Your task to perform on an android device: Open Yahoo.com Image 0: 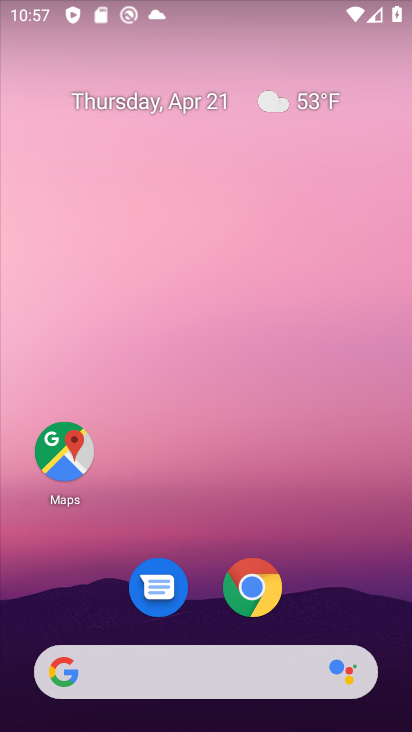
Step 0: click (258, 588)
Your task to perform on an android device: Open Yahoo.com Image 1: 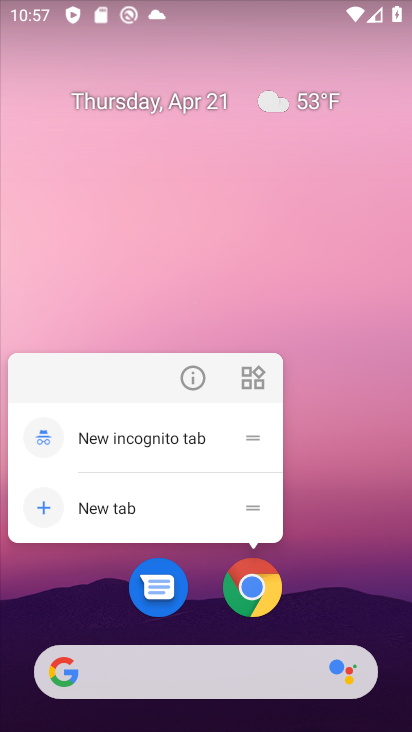
Step 1: click (243, 592)
Your task to perform on an android device: Open Yahoo.com Image 2: 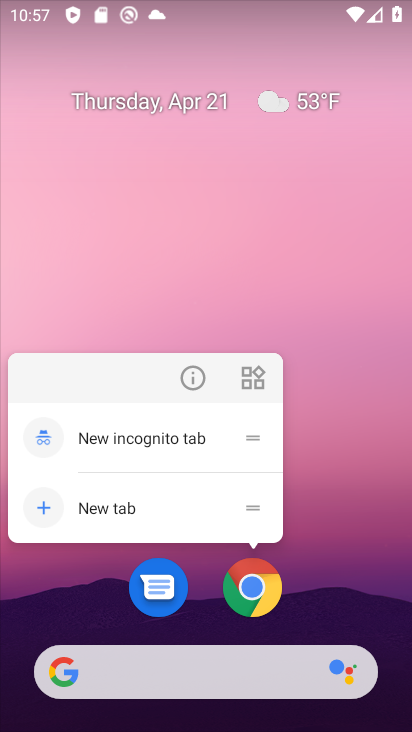
Step 2: click (269, 588)
Your task to perform on an android device: Open Yahoo.com Image 3: 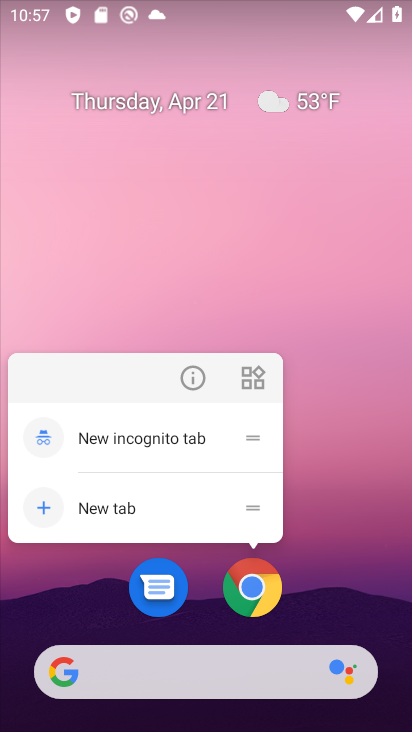
Step 3: click (256, 581)
Your task to perform on an android device: Open Yahoo.com Image 4: 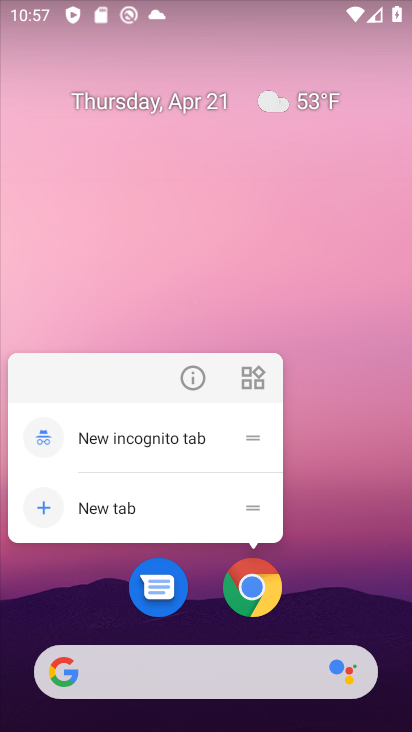
Step 4: click (254, 576)
Your task to perform on an android device: Open Yahoo.com Image 5: 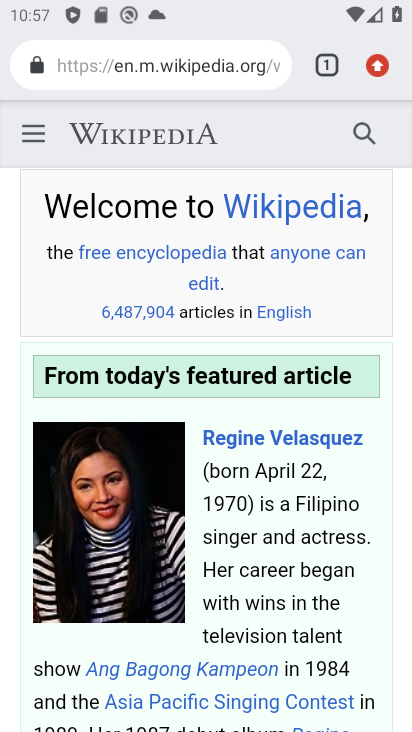
Step 5: click (321, 61)
Your task to perform on an android device: Open Yahoo.com Image 6: 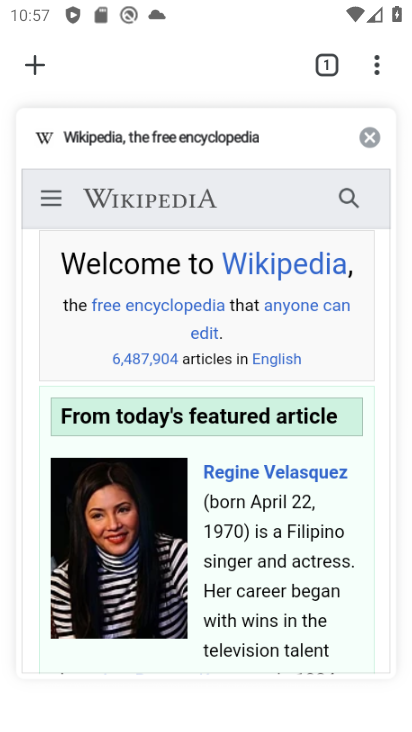
Step 6: click (32, 65)
Your task to perform on an android device: Open Yahoo.com Image 7: 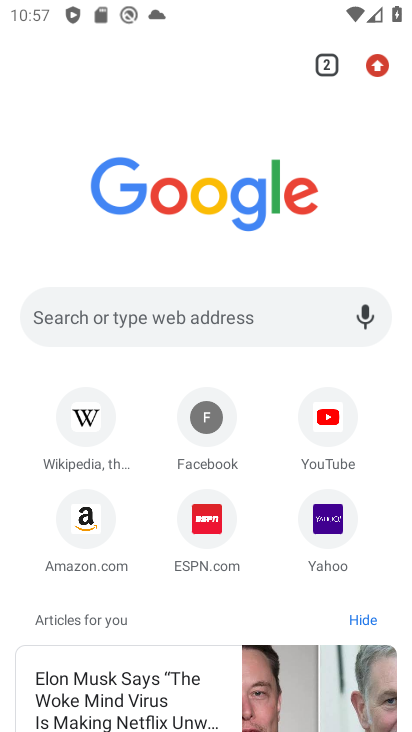
Step 7: click (320, 515)
Your task to perform on an android device: Open Yahoo.com Image 8: 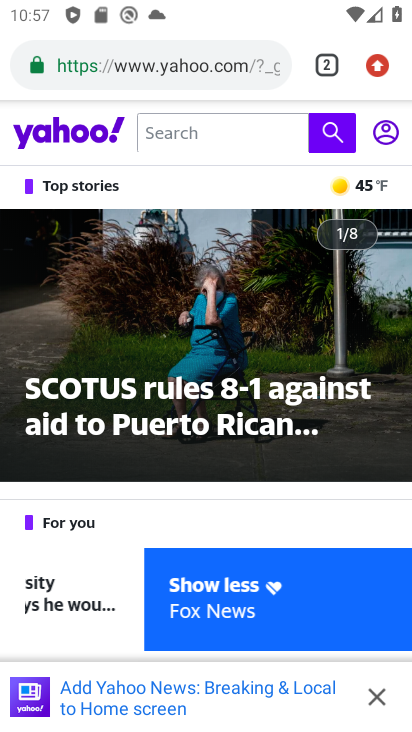
Step 8: task complete